Your task to perform on an android device: Go to Amazon Image 0: 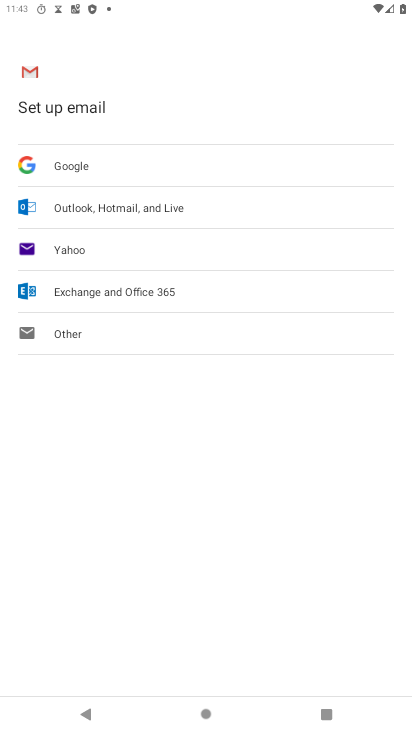
Step 0: press home button
Your task to perform on an android device: Go to Amazon Image 1: 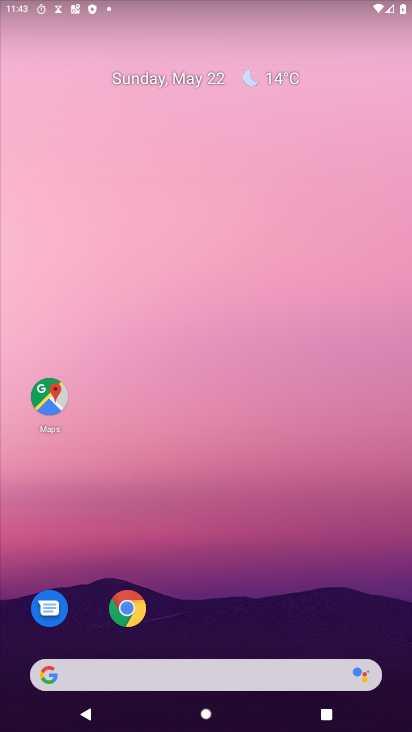
Step 1: drag from (223, 729) to (162, 201)
Your task to perform on an android device: Go to Amazon Image 2: 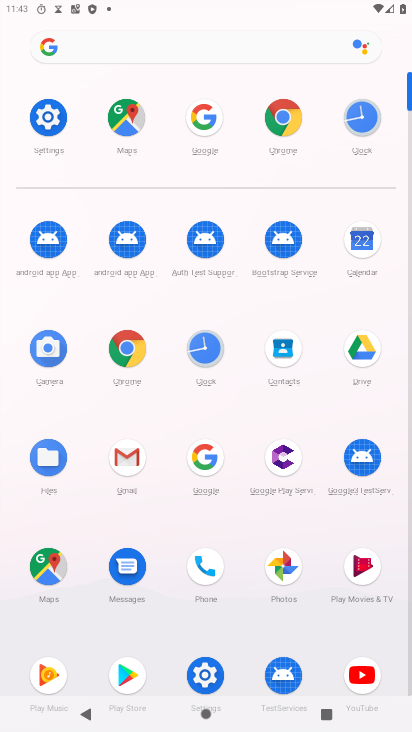
Step 2: click (128, 347)
Your task to perform on an android device: Go to Amazon Image 3: 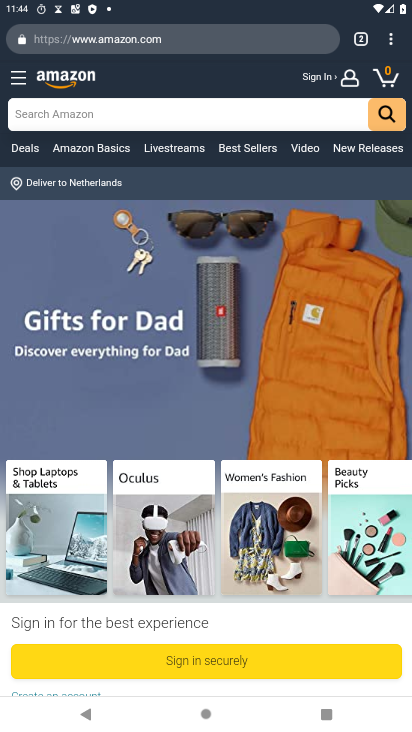
Step 3: task complete